Your task to perform on an android device: check out phone information Image 0: 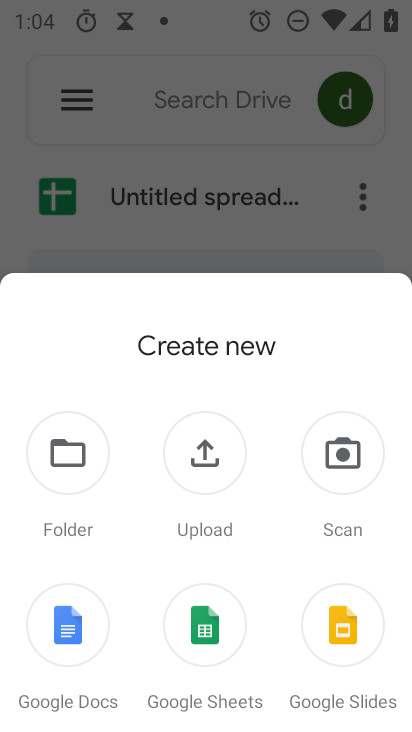
Step 0: press home button
Your task to perform on an android device: check out phone information Image 1: 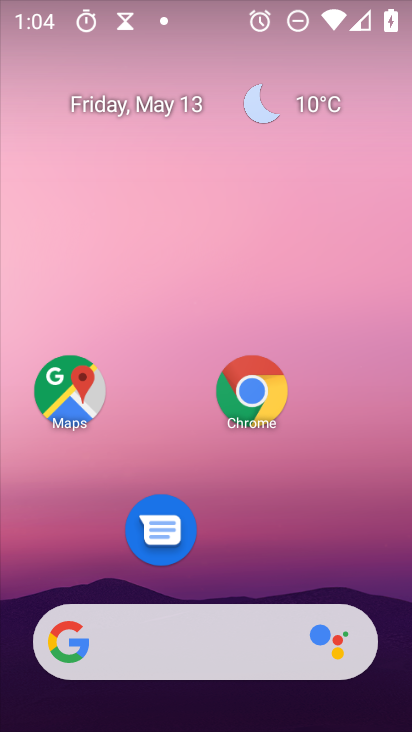
Step 1: drag from (173, 631) to (314, 123)
Your task to perform on an android device: check out phone information Image 2: 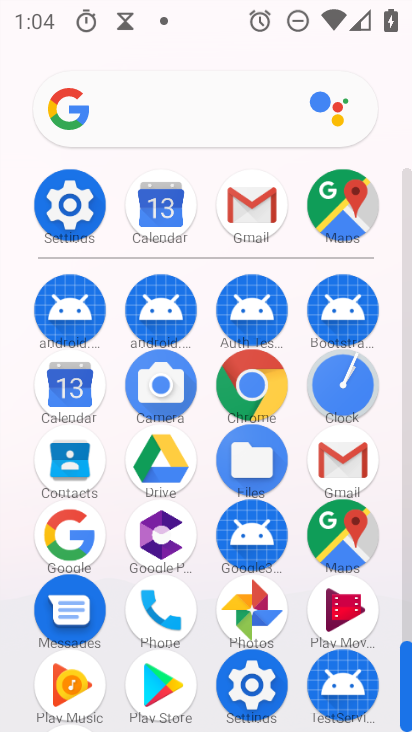
Step 2: click (74, 219)
Your task to perform on an android device: check out phone information Image 3: 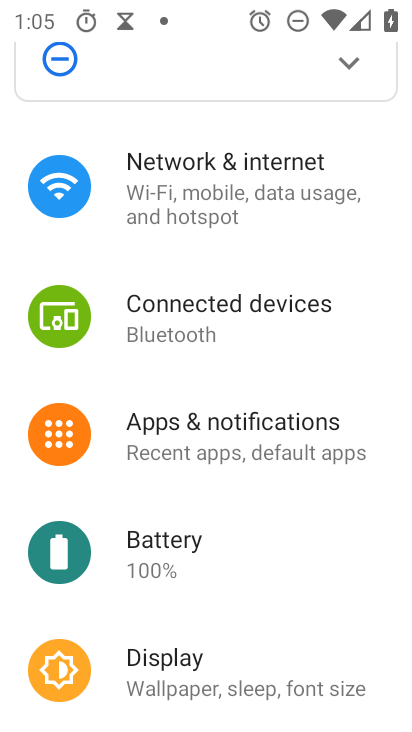
Step 3: drag from (202, 682) to (339, 87)
Your task to perform on an android device: check out phone information Image 4: 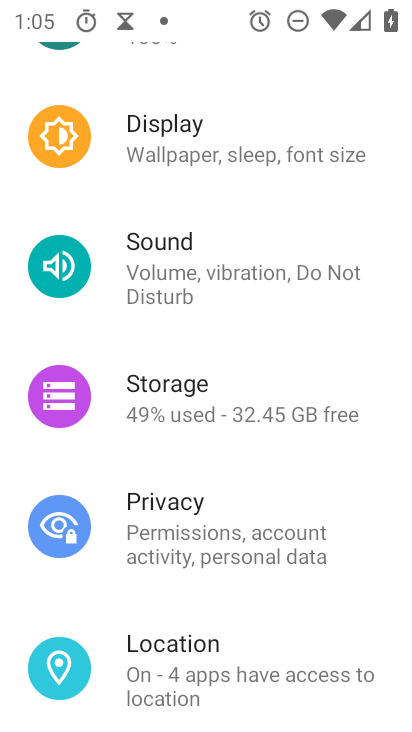
Step 4: drag from (230, 677) to (338, 190)
Your task to perform on an android device: check out phone information Image 5: 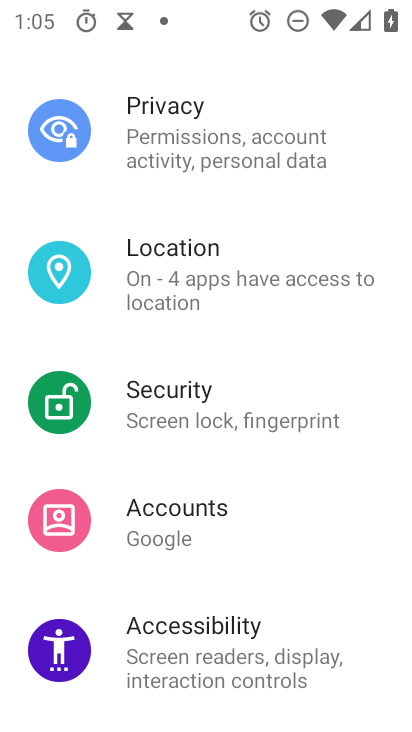
Step 5: drag from (273, 598) to (354, 53)
Your task to perform on an android device: check out phone information Image 6: 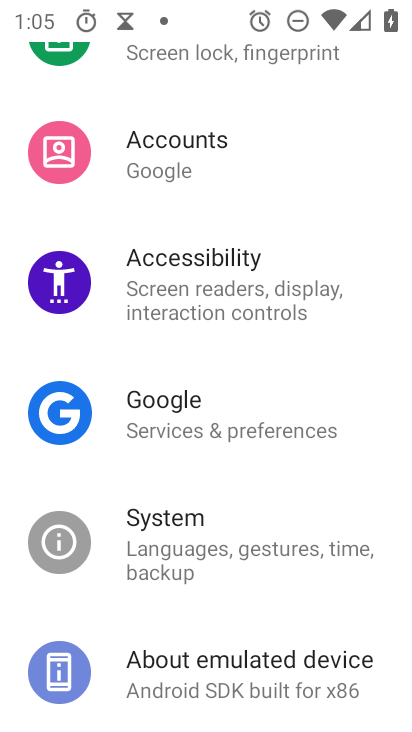
Step 6: click (192, 662)
Your task to perform on an android device: check out phone information Image 7: 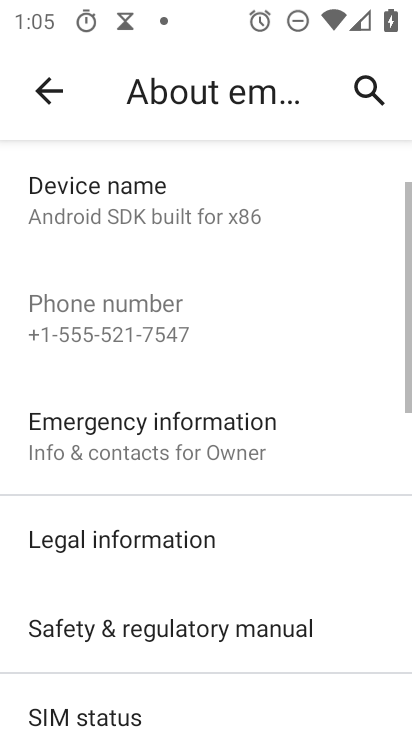
Step 7: task complete